Your task to perform on an android device: Open calendar and show me the first week of next month Image 0: 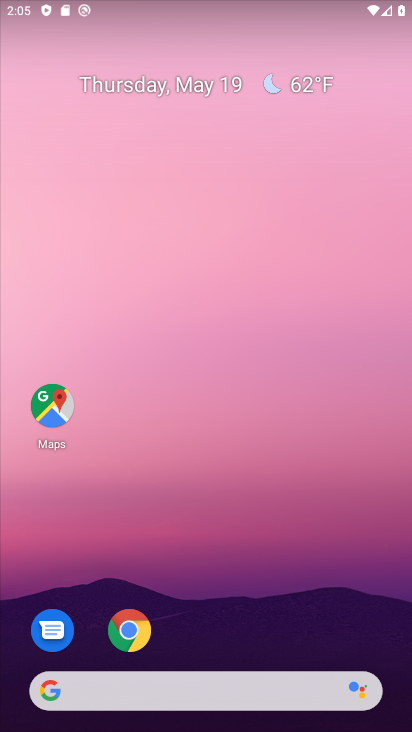
Step 0: drag from (392, 608) to (310, 236)
Your task to perform on an android device: Open calendar and show me the first week of next month Image 1: 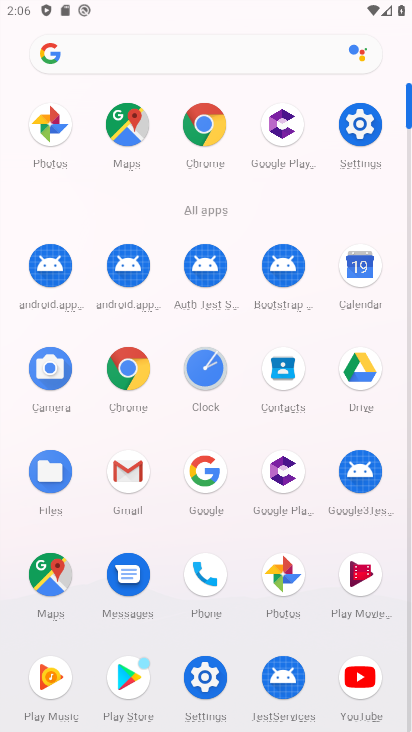
Step 1: click (367, 282)
Your task to perform on an android device: Open calendar and show me the first week of next month Image 2: 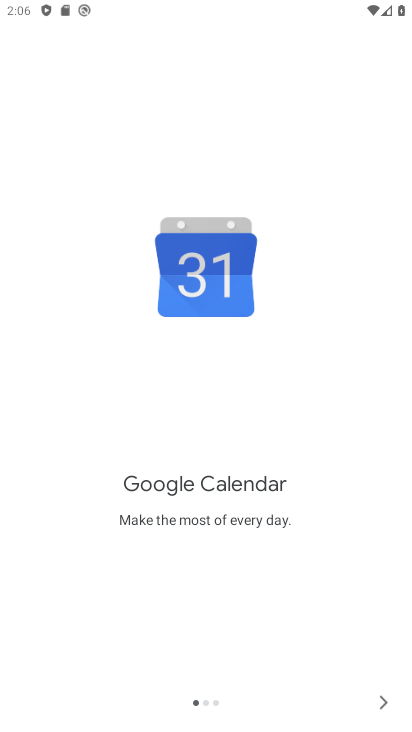
Step 2: click (387, 703)
Your task to perform on an android device: Open calendar and show me the first week of next month Image 3: 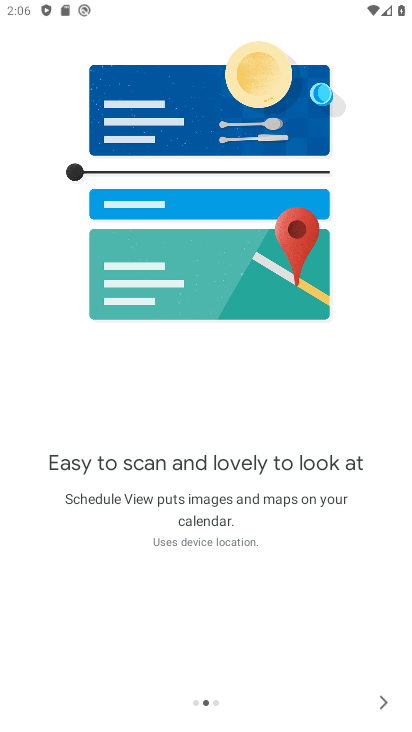
Step 3: click (387, 703)
Your task to perform on an android device: Open calendar and show me the first week of next month Image 4: 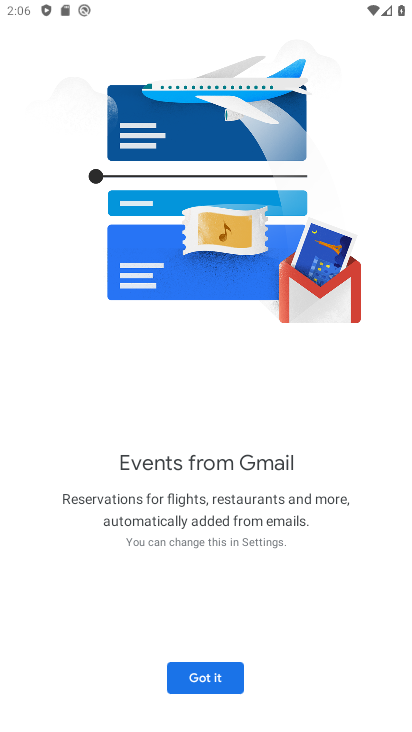
Step 4: click (195, 686)
Your task to perform on an android device: Open calendar and show me the first week of next month Image 5: 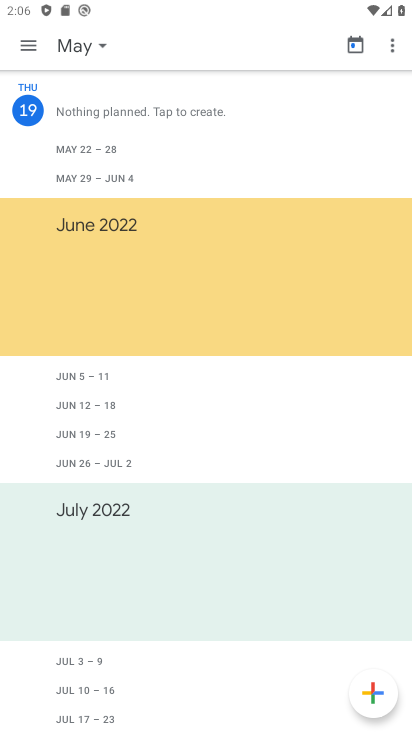
Step 5: click (80, 54)
Your task to perform on an android device: Open calendar and show me the first week of next month Image 6: 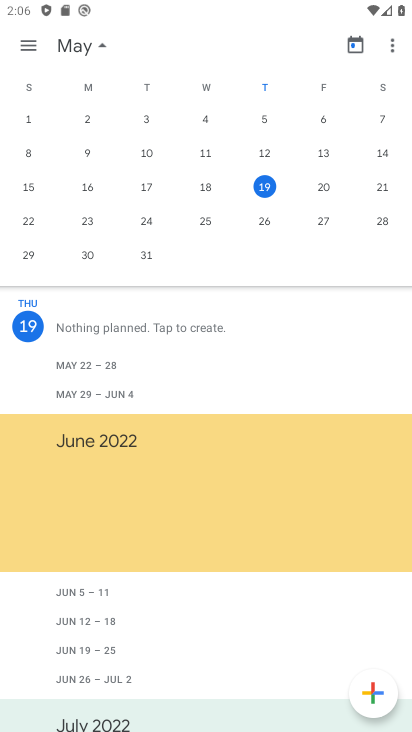
Step 6: task complete